Your task to perform on an android device: Open Google Image 0: 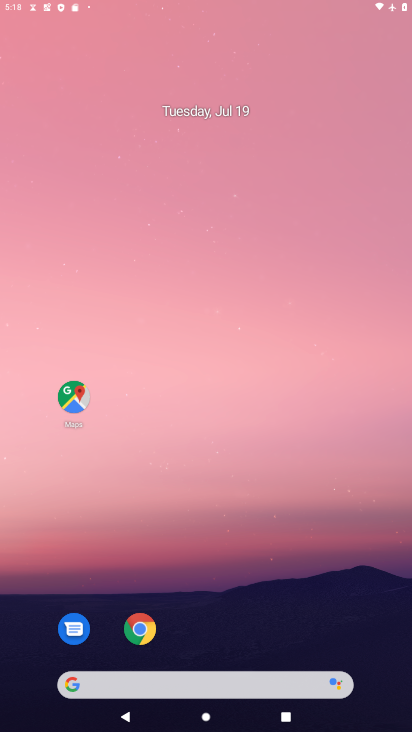
Step 0: press home button
Your task to perform on an android device: Open Google Image 1: 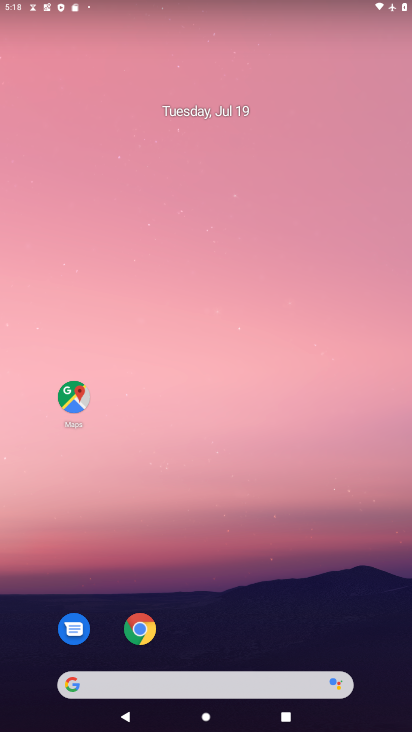
Step 1: click (73, 688)
Your task to perform on an android device: Open Google Image 2: 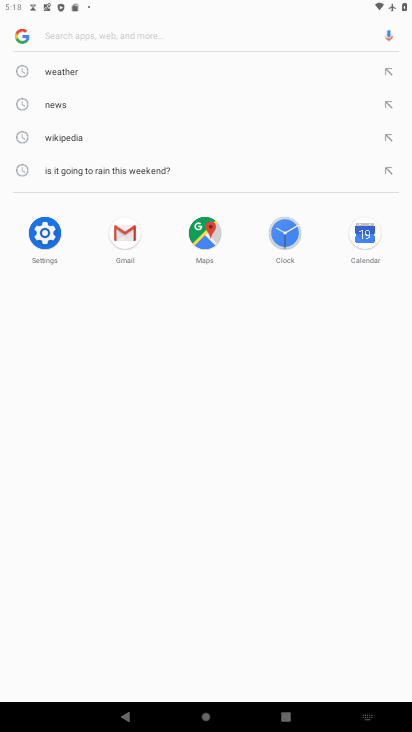
Step 2: task complete